Your task to perform on an android device: change alarm snooze length Image 0: 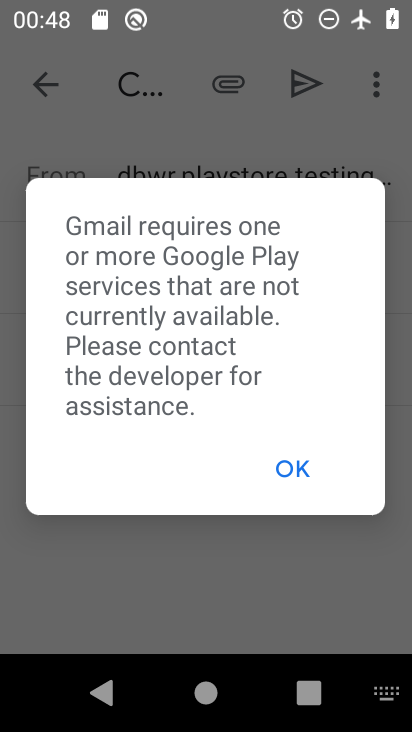
Step 0: press home button
Your task to perform on an android device: change alarm snooze length Image 1: 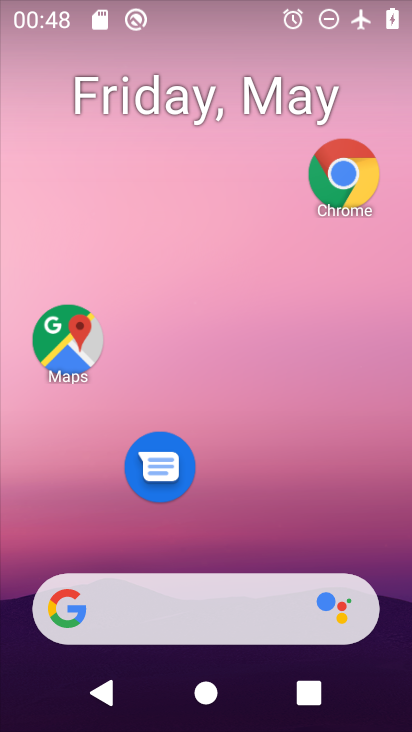
Step 1: drag from (297, 553) to (281, 279)
Your task to perform on an android device: change alarm snooze length Image 2: 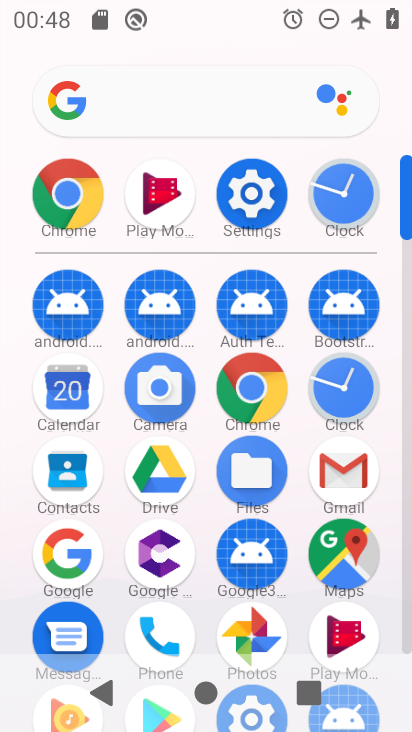
Step 2: click (350, 377)
Your task to perform on an android device: change alarm snooze length Image 3: 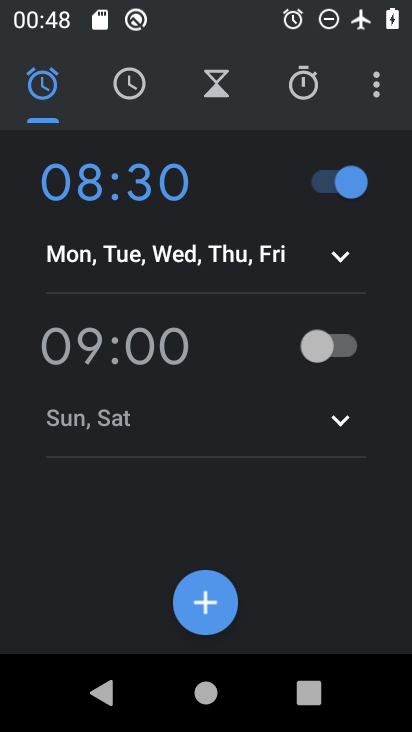
Step 3: click (368, 73)
Your task to perform on an android device: change alarm snooze length Image 4: 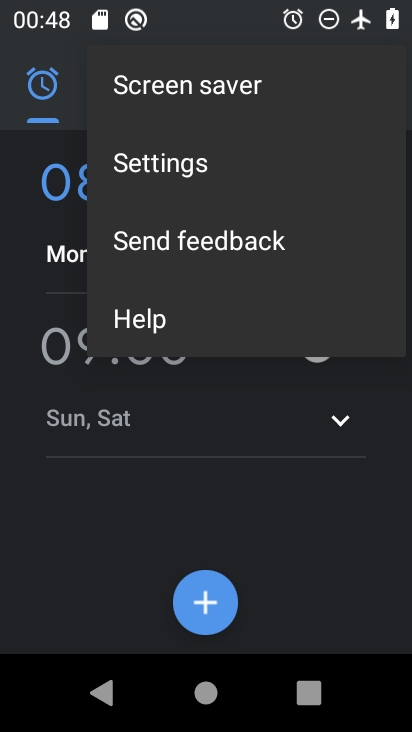
Step 4: click (201, 171)
Your task to perform on an android device: change alarm snooze length Image 5: 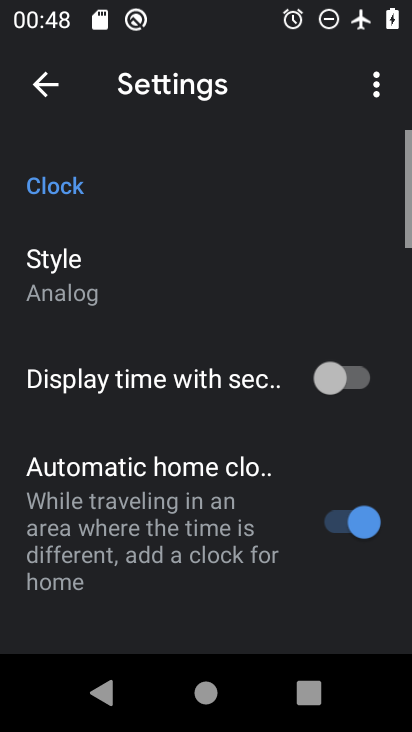
Step 5: drag from (259, 536) to (279, 159)
Your task to perform on an android device: change alarm snooze length Image 6: 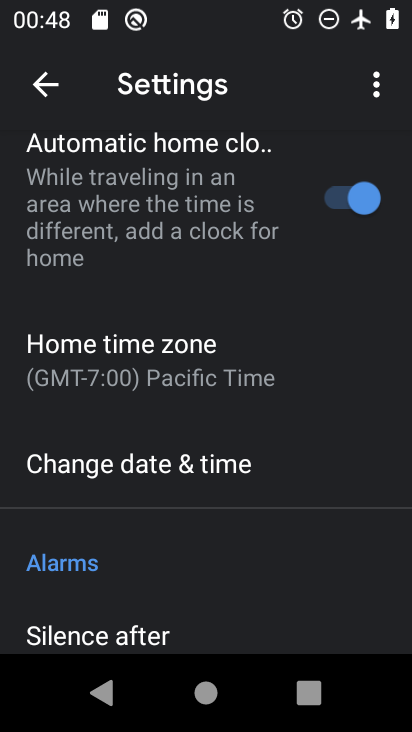
Step 6: drag from (203, 608) to (250, 204)
Your task to perform on an android device: change alarm snooze length Image 7: 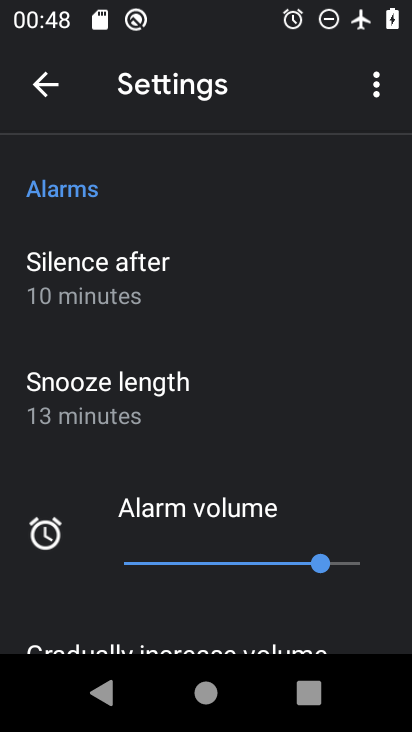
Step 7: click (152, 418)
Your task to perform on an android device: change alarm snooze length Image 8: 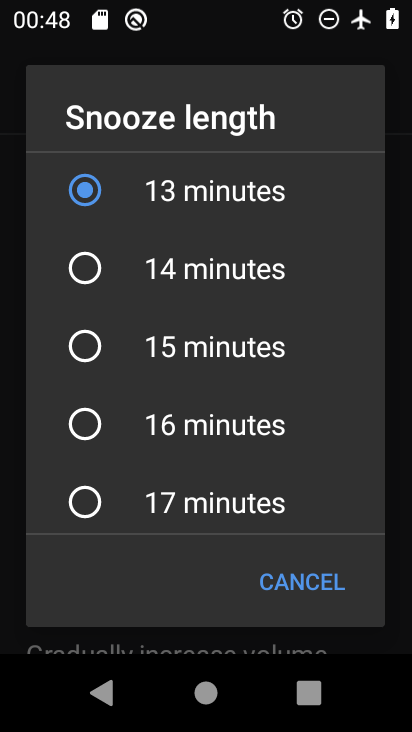
Step 8: drag from (156, 444) to (222, 265)
Your task to perform on an android device: change alarm snooze length Image 9: 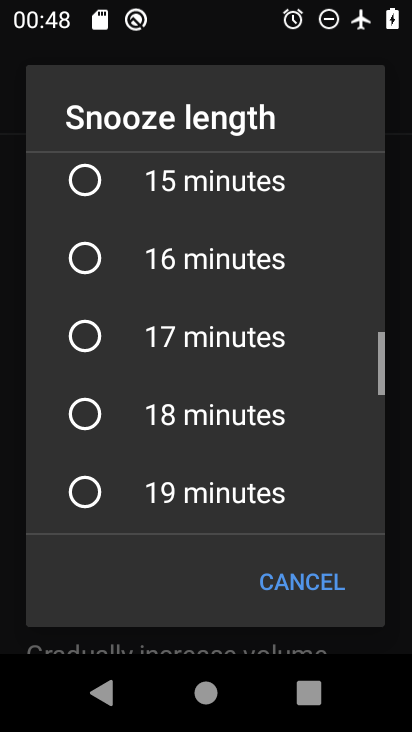
Step 9: click (207, 400)
Your task to perform on an android device: change alarm snooze length Image 10: 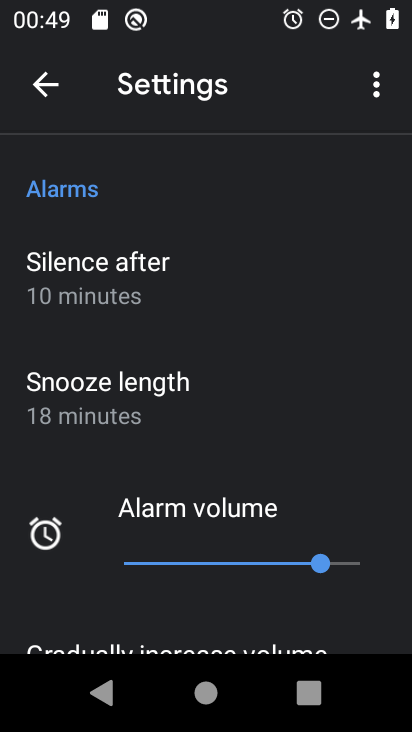
Step 10: task complete